Your task to perform on an android device: turn off smart reply in the gmail app Image 0: 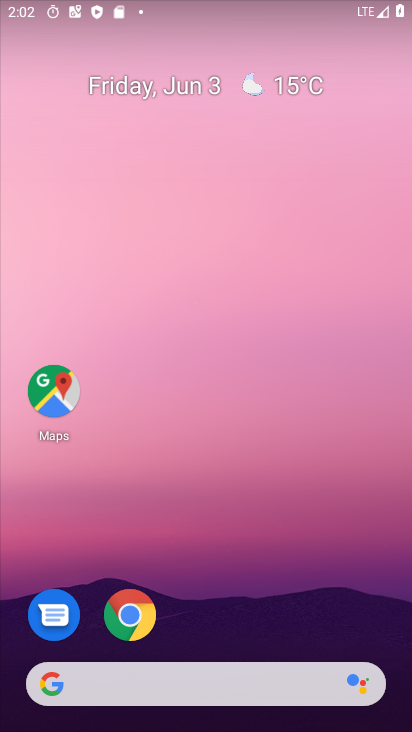
Step 0: drag from (192, 397) to (217, 131)
Your task to perform on an android device: turn off smart reply in the gmail app Image 1: 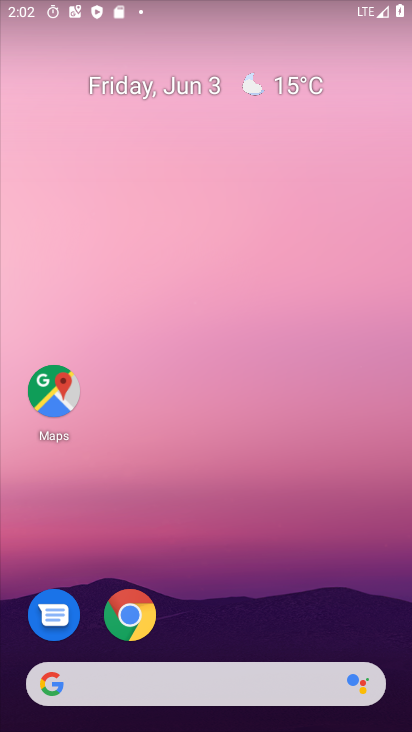
Step 1: drag from (178, 590) to (205, 53)
Your task to perform on an android device: turn off smart reply in the gmail app Image 2: 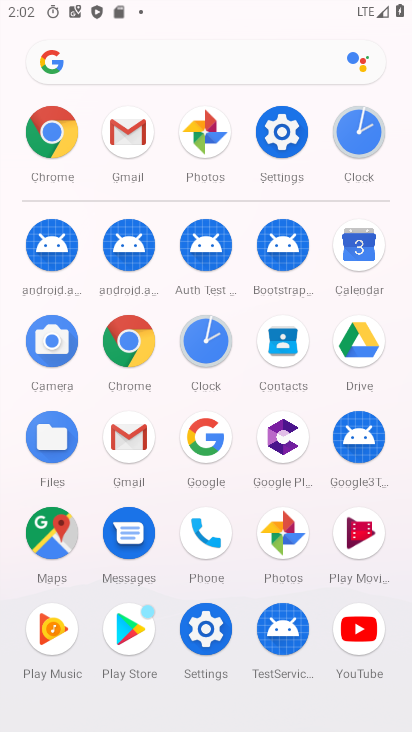
Step 2: click (117, 431)
Your task to perform on an android device: turn off smart reply in the gmail app Image 3: 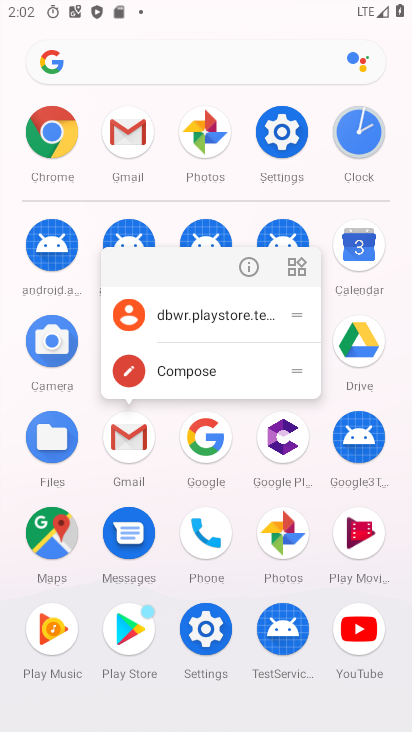
Step 3: click (242, 259)
Your task to perform on an android device: turn off smart reply in the gmail app Image 4: 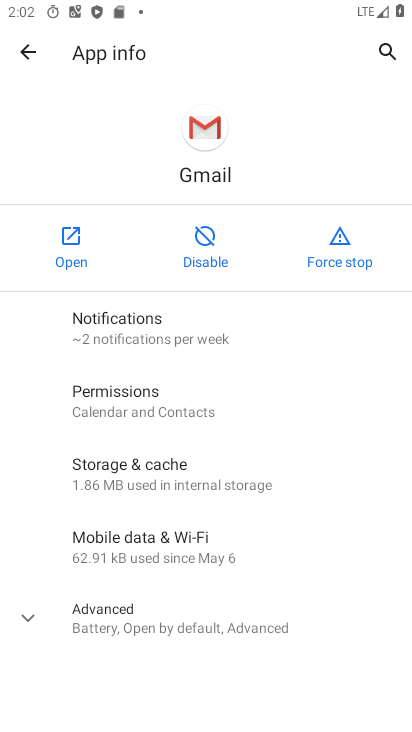
Step 4: click (81, 252)
Your task to perform on an android device: turn off smart reply in the gmail app Image 5: 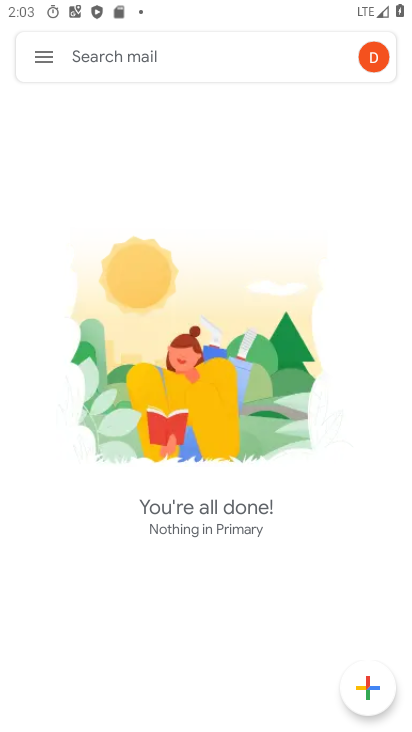
Step 5: click (44, 57)
Your task to perform on an android device: turn off smart reply in the gmail app Image 6: 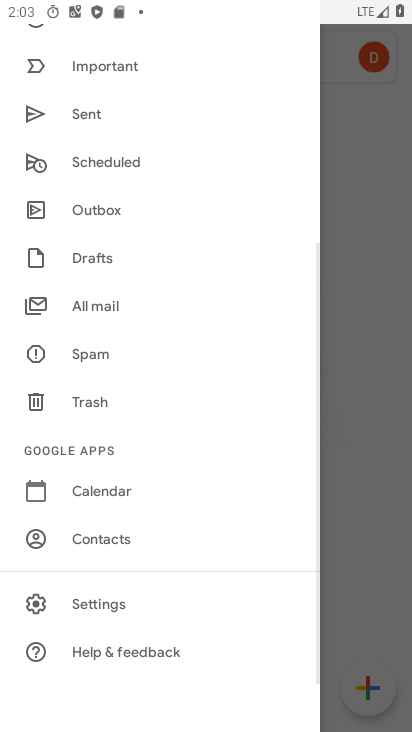
Step 6: click (120, 601)
Your task to perform on an android device: turn off smart reply in the gmail app Image 7: 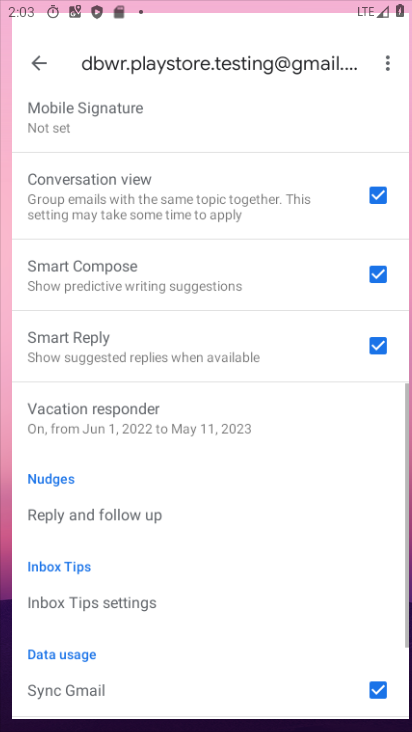
Step 7: drag from (131, 580) to (233, 64)
Your task to perform on an android device: turn off smart reply in the gmail app Image 8: 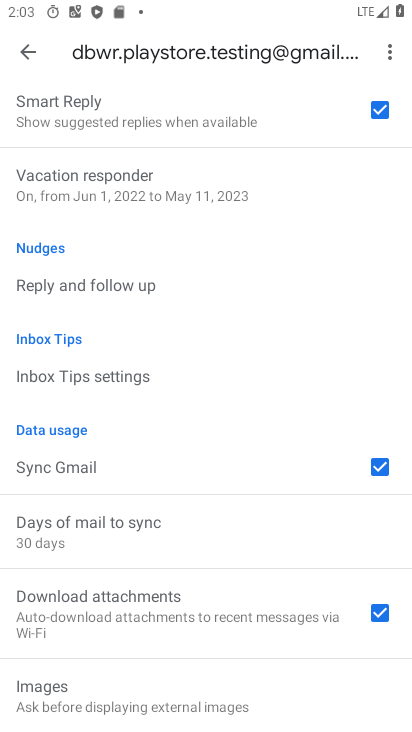
Step 8: drag from (235, 520) to (295, 140)
Your task to perform on an android device: turn off smart reply in the gmail app Image 9: 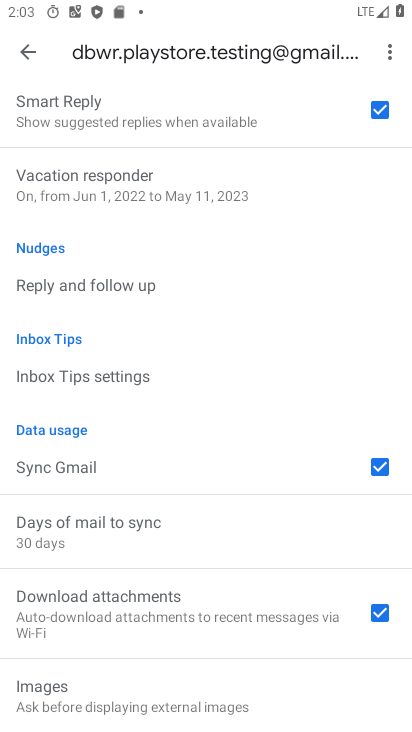
Step 9: drag from (187, 228) to (205, 683)
Your task to perform on an android device: turn off smart reply in the gmail app Image 10: 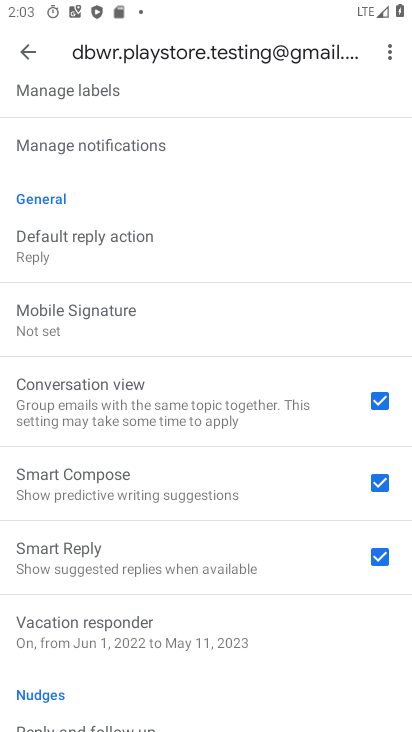
Step 10: click (374, 559)
Your task to perform on an android device: turn off smart reply in the gmail app Image 11: 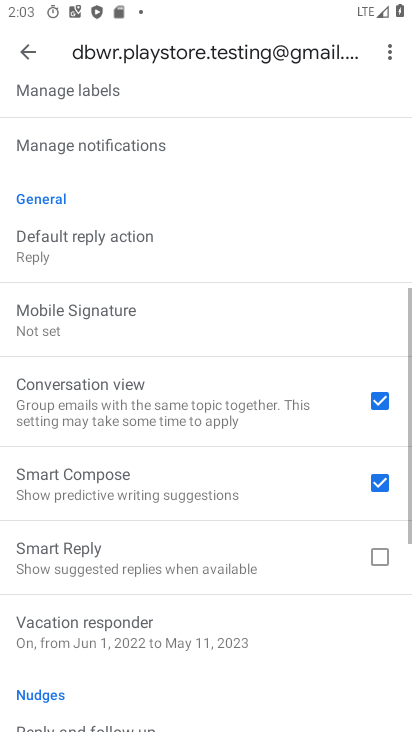
Step 11: task complete